Your task to perform on an android device: turn off wifi Image 0: 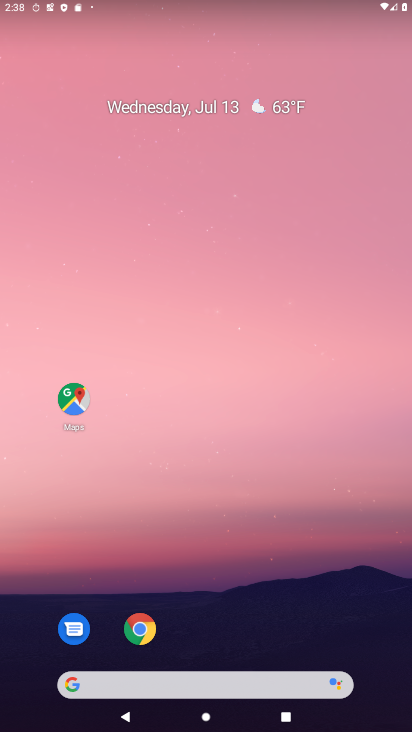
Step 0: drag from (237, 57) to (230, 2)
Your task to perform on an android device: turn off wifi Image 1: 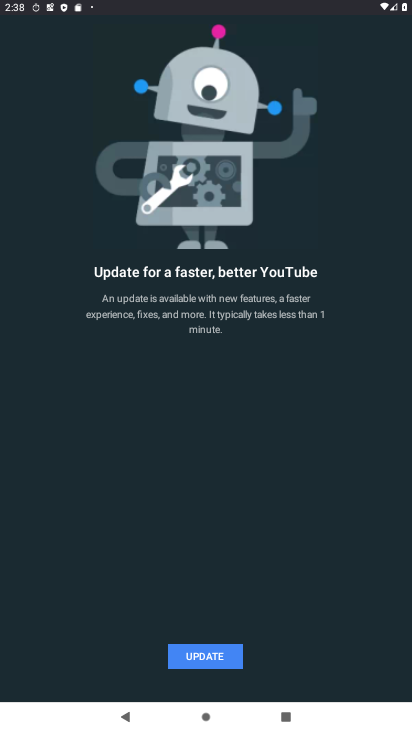
Step 1: press home button
Your task to perform on an android device: turn off wifi Image 2: 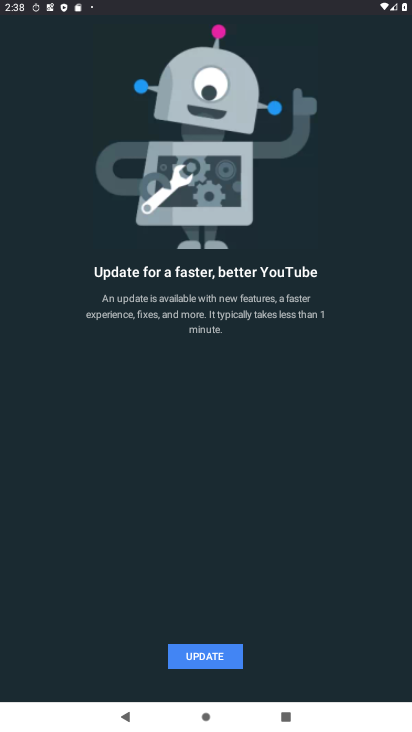
Step 2: press home button
Your task to perform on an android device: turn off wifi Image 3: 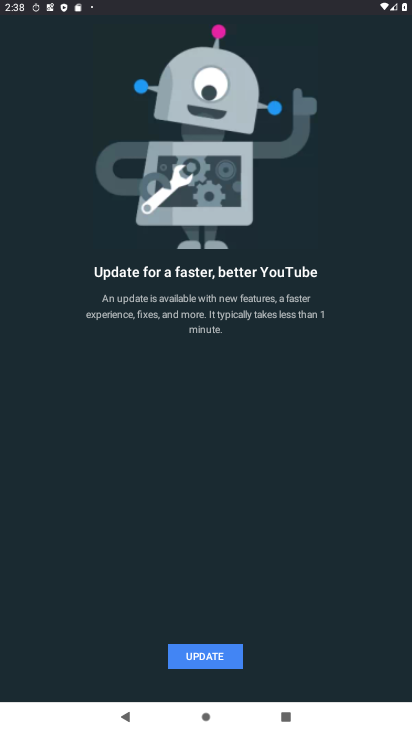
Step 3: drag from (219, 464) to (246, 89)
Your task to perform on an android device: turn off wifi Image 4: 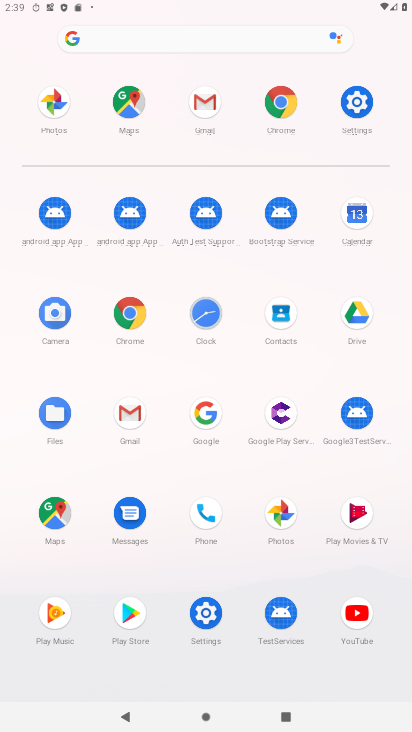
Step 4: click (356, 96)
Your task to perform on an android device: turn off wifi Image 5: 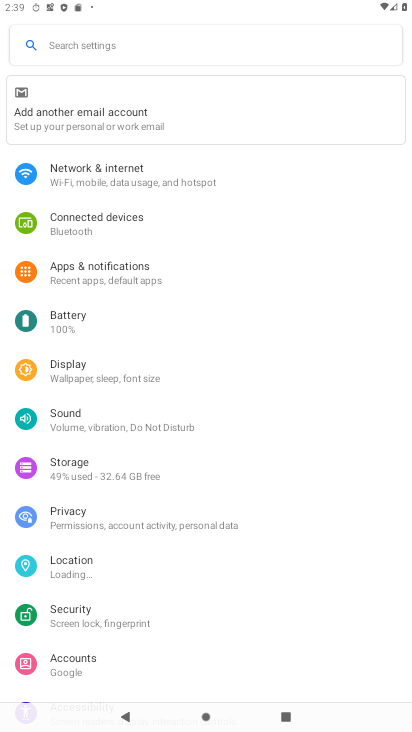
Step 5: click (123, 172)
Your task to perform on an android device: turn off wifi Image 6: 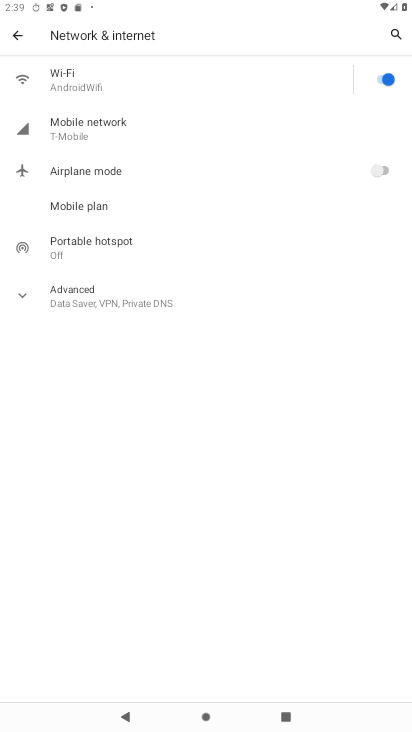
Step 6: click (161, 77)
Your task to perform on an android device: turn off wifi Image 7: 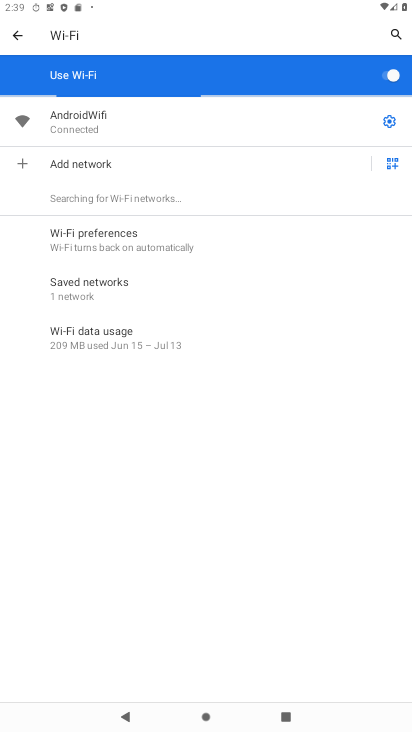
Step 7: click (393, 69)
Your task to perform on an android device: turn off wifi Image 8: 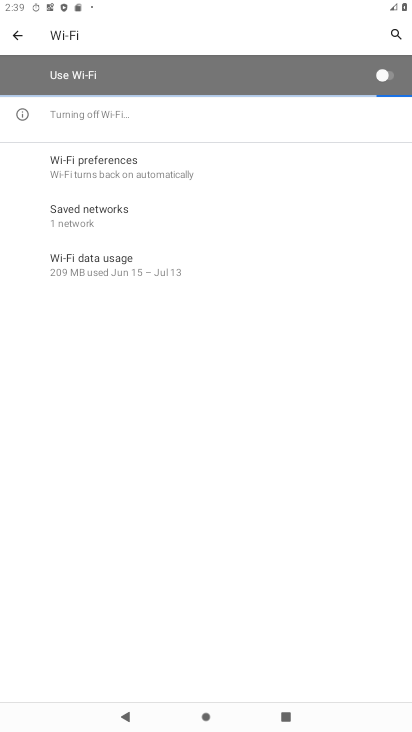
Step 8: task complete